Your task to perform on an android device: Check the news Image 0: 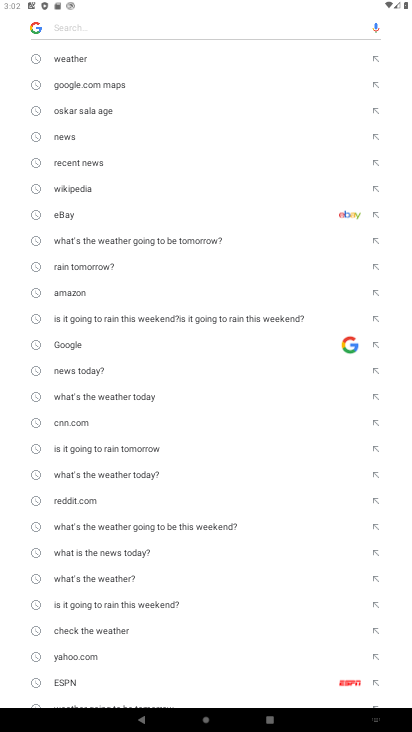
Step 0: press back button
Your task to perform on an android device: Check the news Image 1: 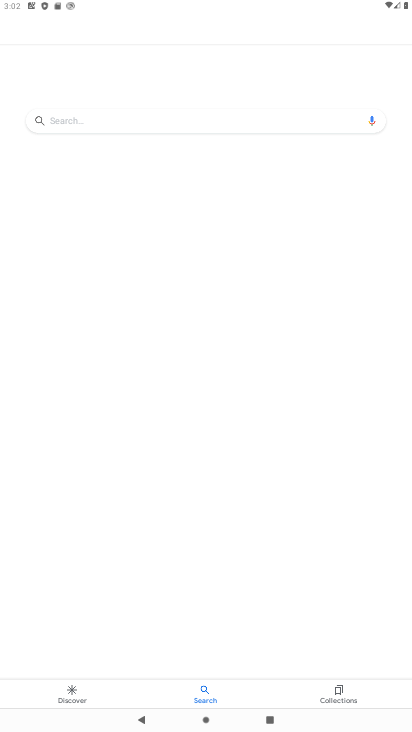
Step 1: click (169, 120)
Your task to perform on an android device: Check the news Image 2: 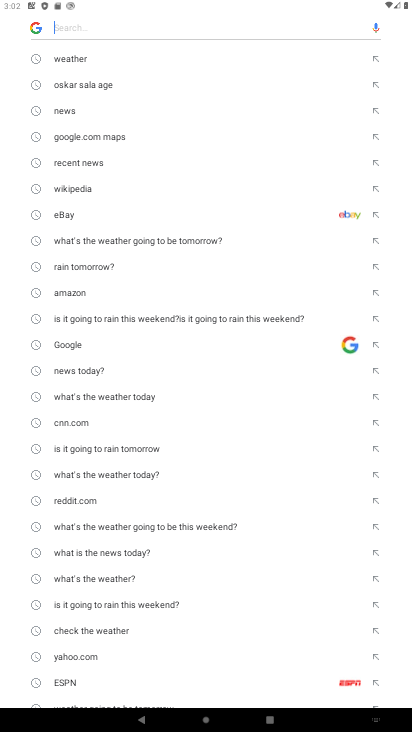
Step 2: type "news"
Your task to perform on an android device: Check the news Image 3: 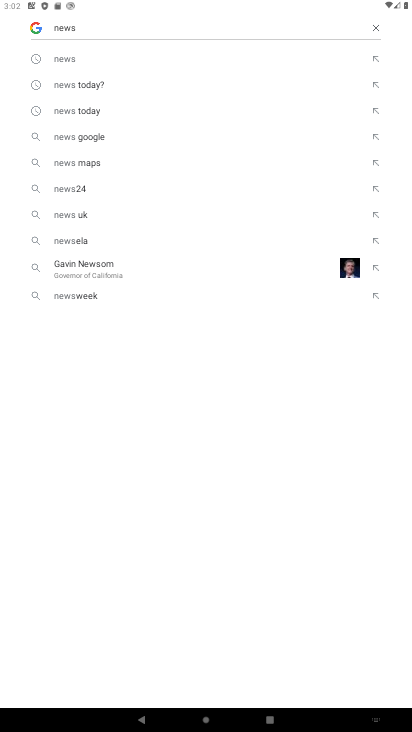
Step 3: click (64, 49)
Your task to perform on an android device: Check the news Image 4: 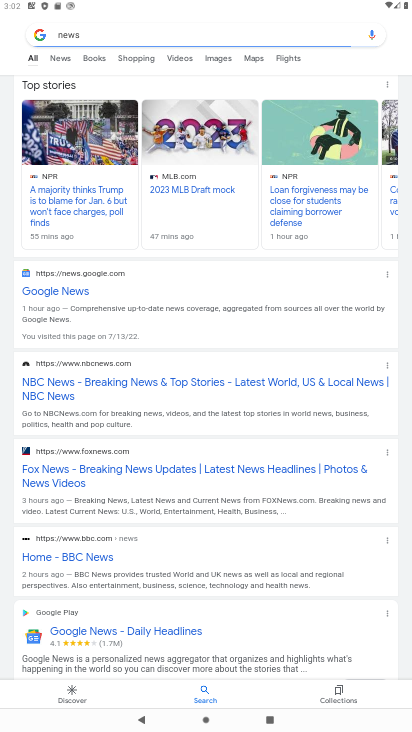
Step 4: task complete